Your task to perform on an android device: turn on javascript in the chrome app Image 0: 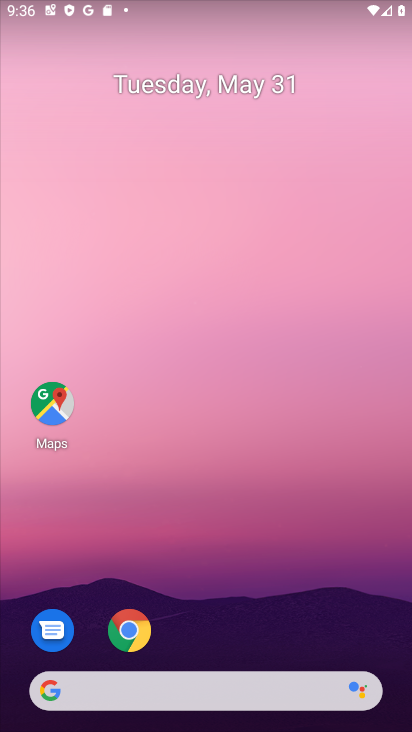
Step 0: click (129, 627)
Your task to perform on an android device: turn on javascript in the chrome app Image 1: 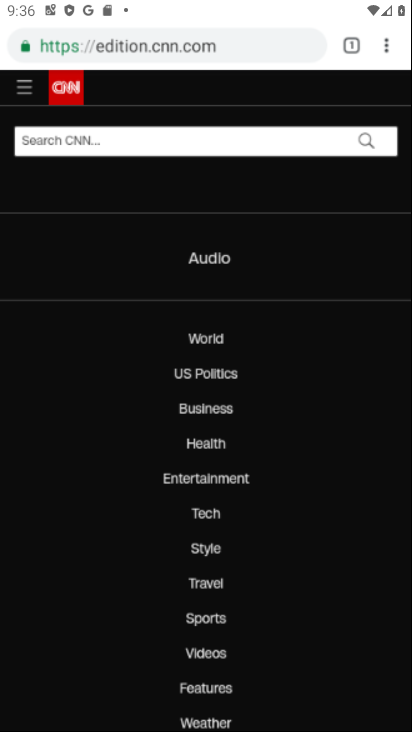
Step 1: click (393, 52)
Your task to perform on an android device: turn on javascript in the chrome app Image 2: 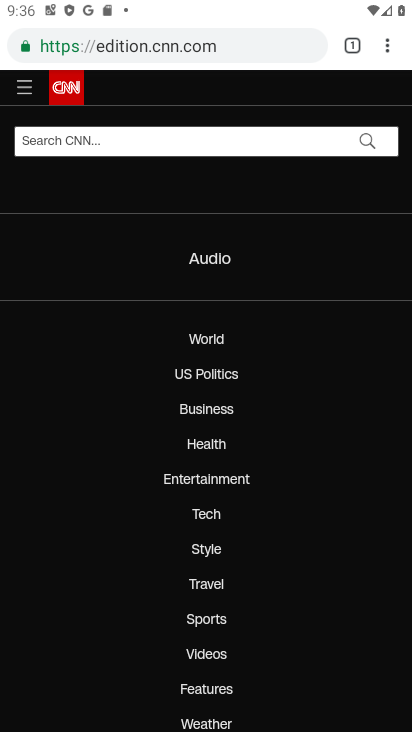
Step 2: click (384, 41)
Your task to perform on an android device: turn on javascript in the chrome app Image 3: 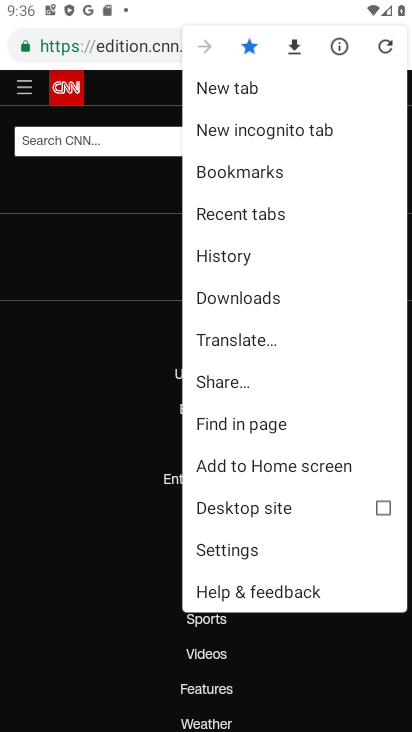
Step 3: click (248, 557)
Your task to perform on an android device: turn on javascript in the chrome app Image 4: 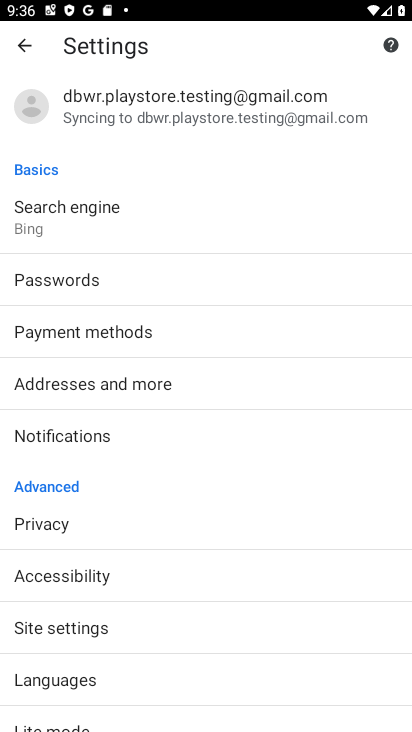
Step 4: drag from (156, 686) to (171, 329)
Your task to perform on an android device: turn on javascript in the chrome app Image 5: 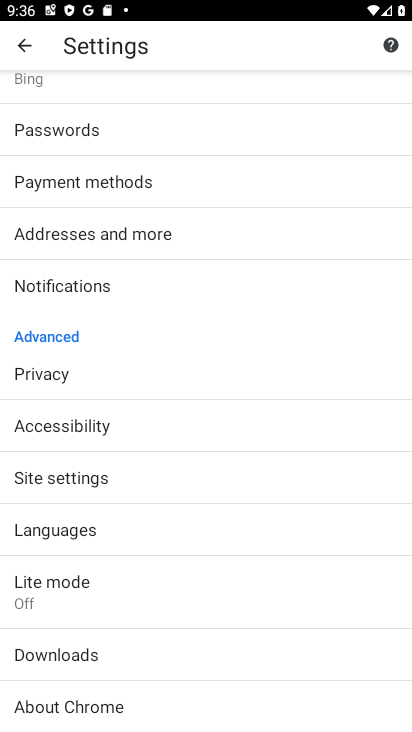
Step 5: click (64, 479)
Your task to perform on an android device: turn on javascript in the chrome app Image 6: 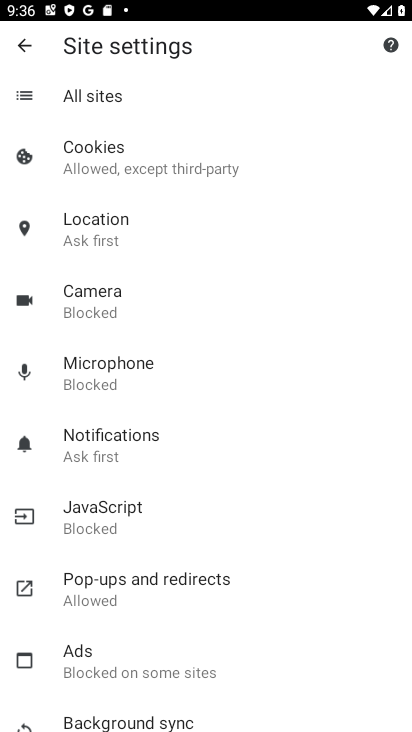
Step 6: click (102, 529)
Your task to perform on an android device: turn on javascript in the chrome app Image 7: 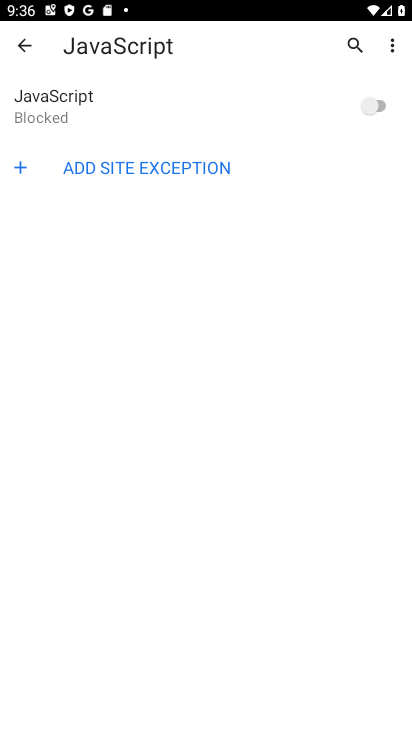
Step 7: click (374, 107)
Your task to perform on an android device: turn on javascript in the chrome app Image 8: 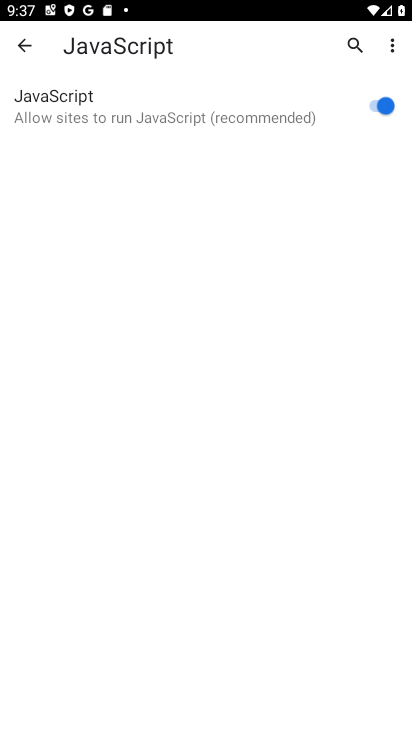
Step 8: task complete